Your task to perform on an android device: Open Amazon Image 0: 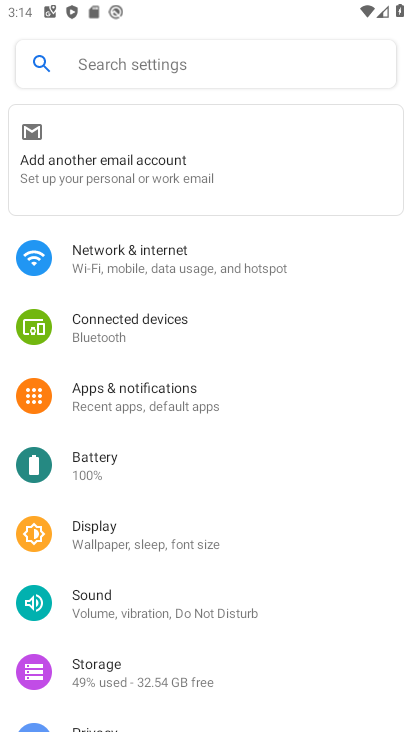
Step 0: press home button
Your task to perform on an android device: Open Amazon Image 1: 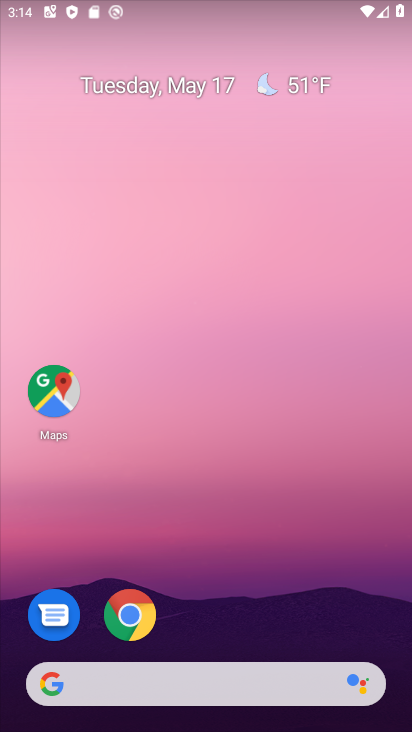
Step 1: drag from (208, 601) to (309, 136)
Your task to perform on an android device: Open Amazon Image 2: 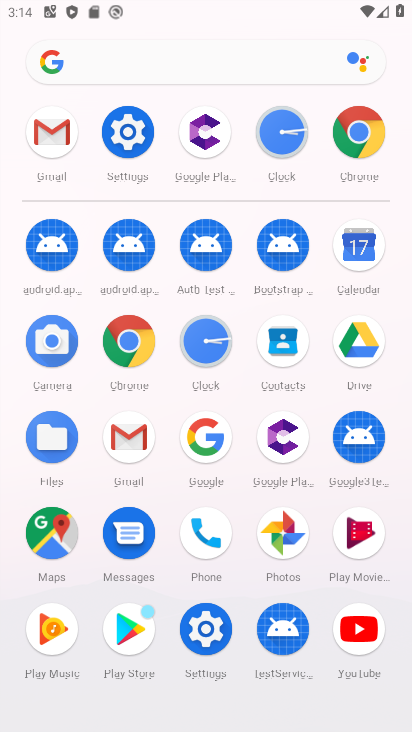
Step 2: click (125, 344)
Your task to perform on an android device: Open Amazon Image 3: 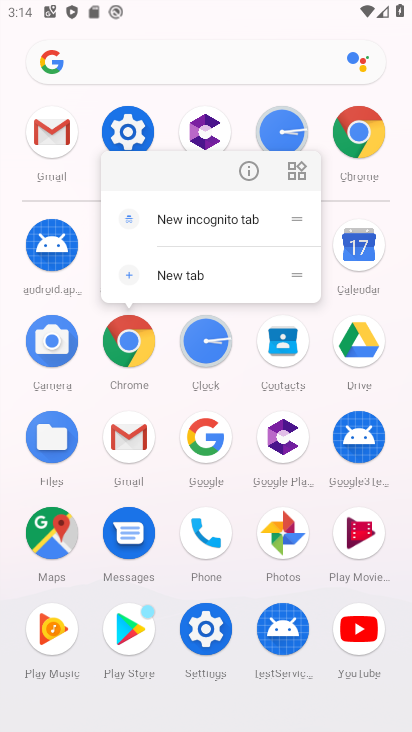
Step 3: click (135, 345)
Your task to perform on an android device: Open Amazon Image 4: 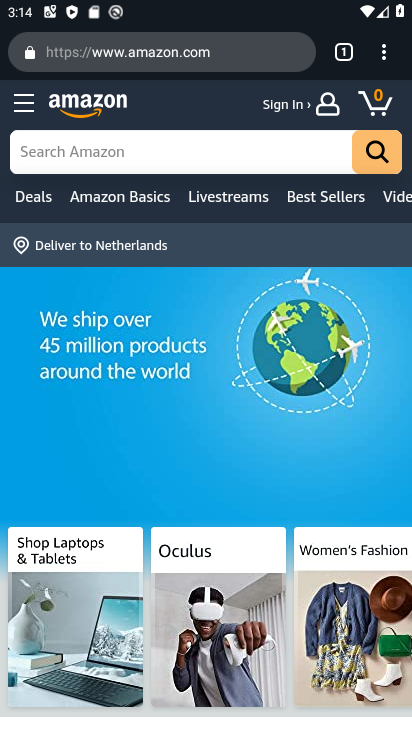
Step 4: drag from (220, 471) to (278, 333)
Your task to perform on an android device: Open Amazon Image 5: 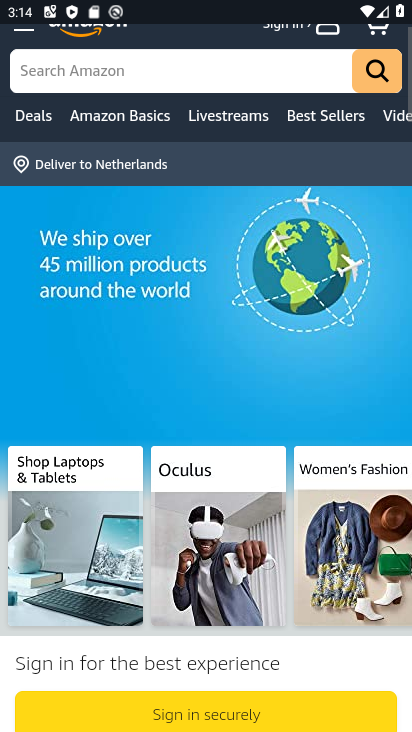
Step 5: click (292, 292)
Your task to perform on an android device: Open Amazon Image 6: 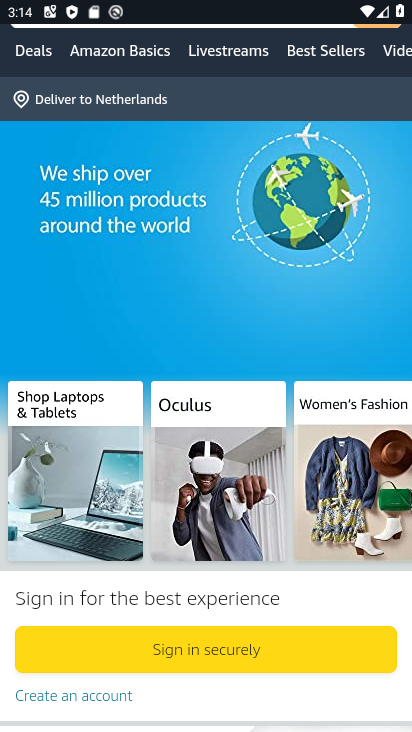
Step 6: task complete